Your task to perform on an android device: open chrome and create a bookmark for the current page Image 0: 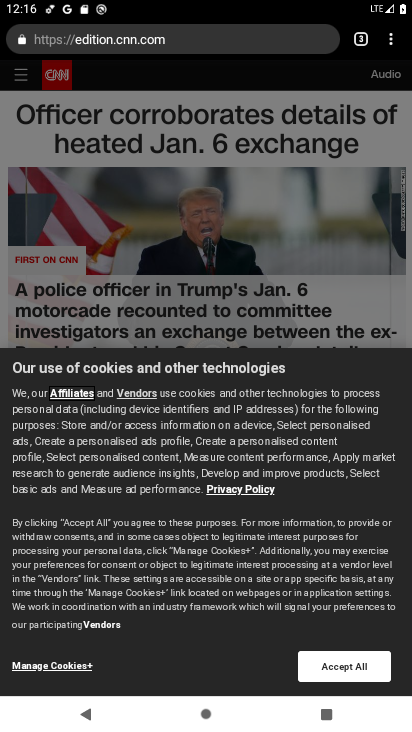
Step 0: drag from (227, 545) to (112, 112)
Your task to perform on an android device: open chrome and create a bookmark for the current page Image 1: 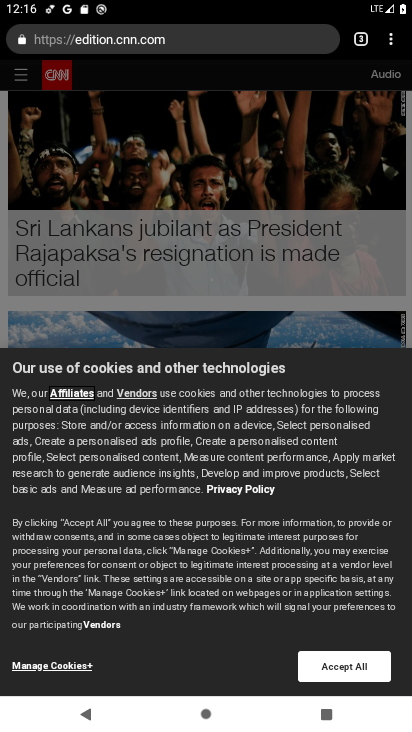
Step 1: click (390, 33)
Your task to perform on an android device: open chrome and create a bookmark for the current page Image 2: 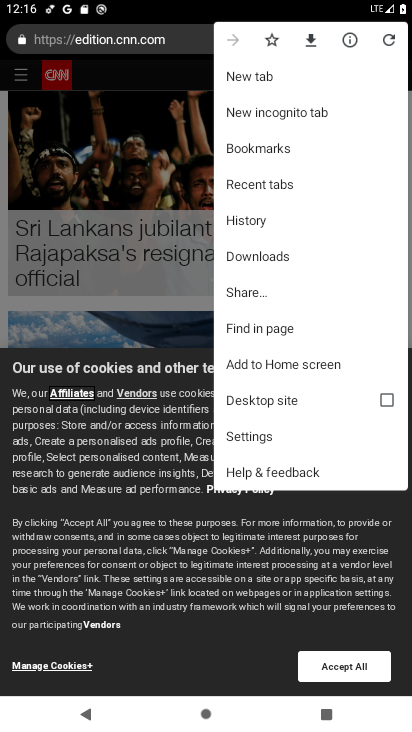
Step 2: click (273, 39)
Your task to perform on an android device: open chrome and create a bookmark for the current page Image 3: 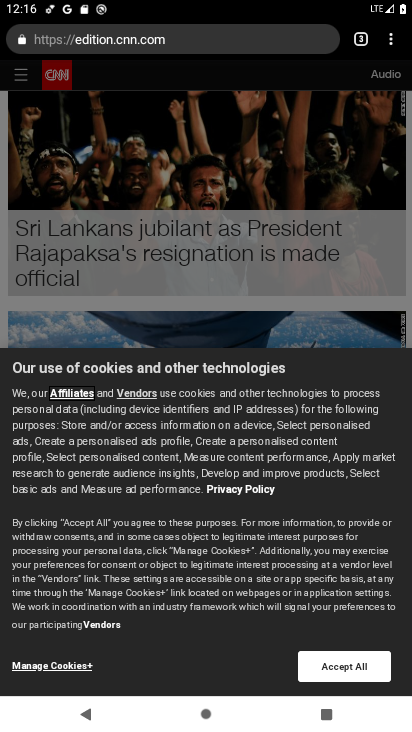
Step 3: task complete